Your task to perform on an android device: delete location history Image 0: 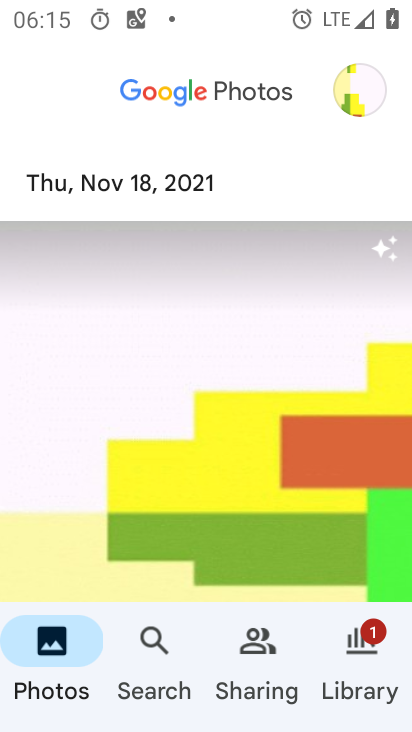
Step 0: drag from (167, 542) to (147, 140)
Your task to perform on an android device: delete location history Image 1: 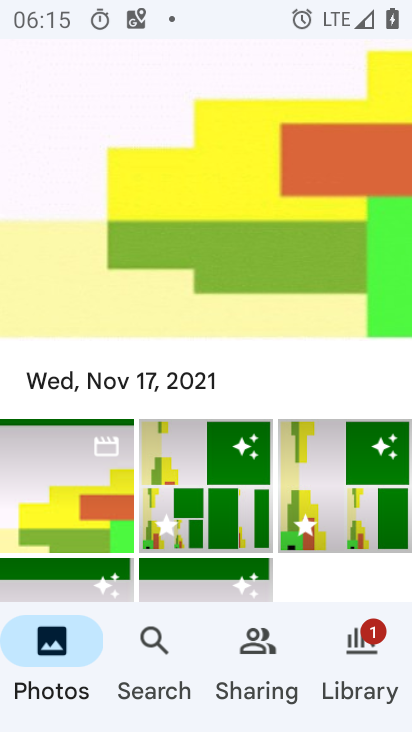
Step 1: press home button
Your task to perform on an android device: delete location history Image 2: 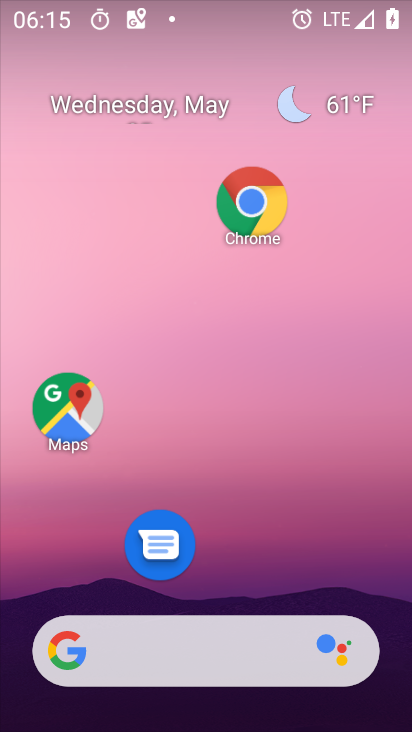
Step 2: drag from (197, 605) to (161, 168)
Your task to perform on an android device: delete location history Image 3: 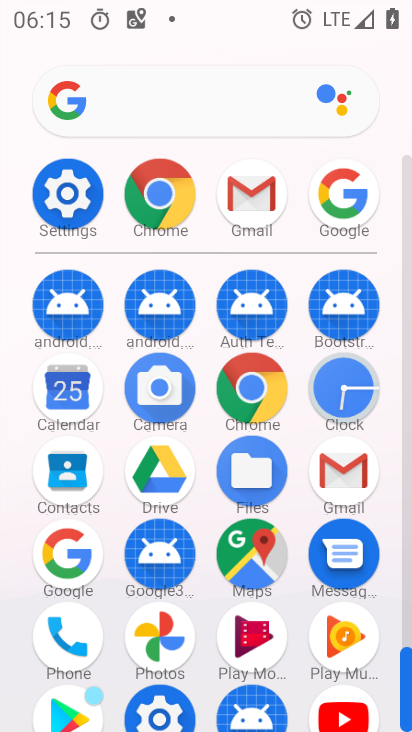
Step 3: drag from (214, 679) to (188, 423)
Your task to perform on an android device: delete location history Image 4: 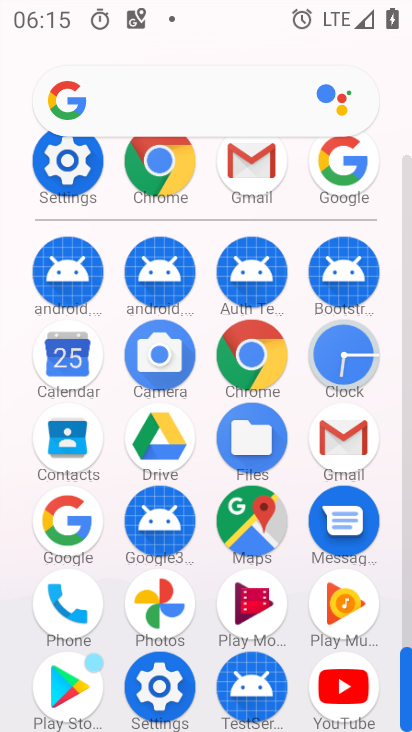
Step 4: click (150, 688)
Your task to perform on an android device: delete location history Image 5: 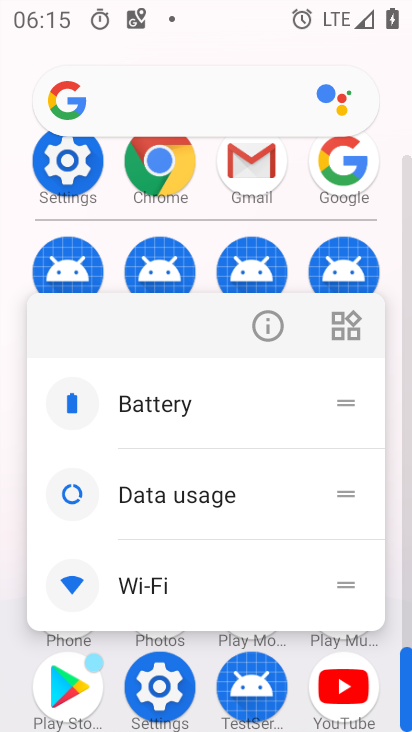
Step 5: click (150, 688)
Your task to perform on an android device: delete location history Image 6: 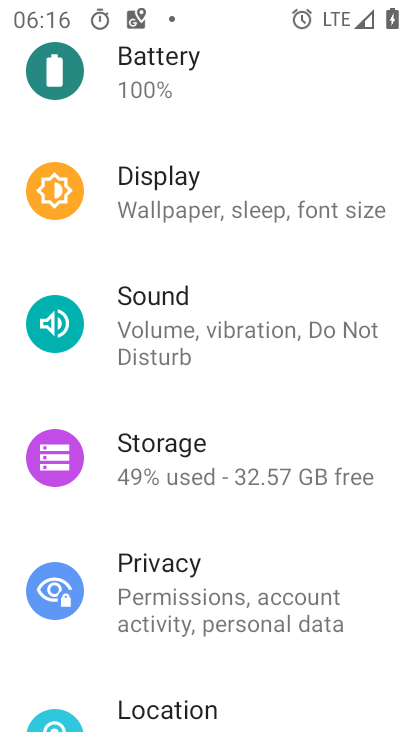
Step 6: drag from (227, 701) to (214, 405)
Your task to perform on an android device: delete location history Image 7: 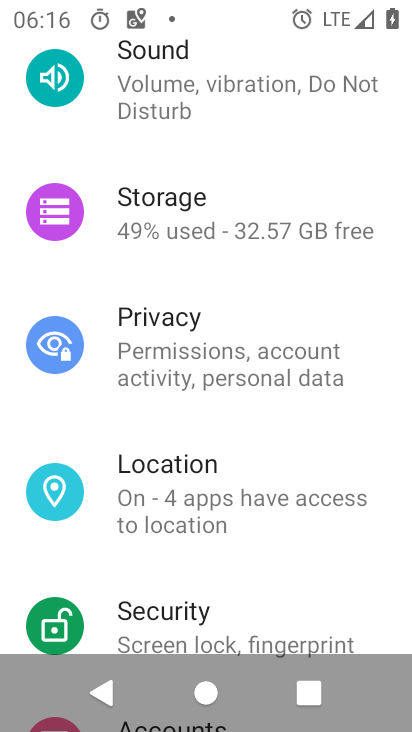
Step 7: click (184, 490)
Your task to perform on an android device: delete location history Image 8: 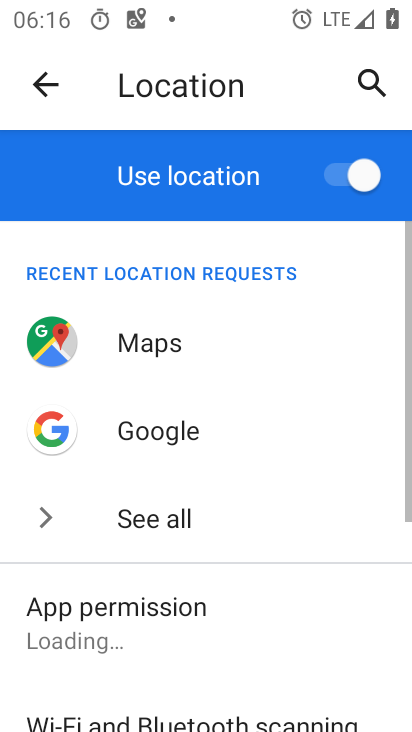
Step 8: drag from (224, 692) to (212, 407)
Your task to perform on an android device: delete location history Image 9: 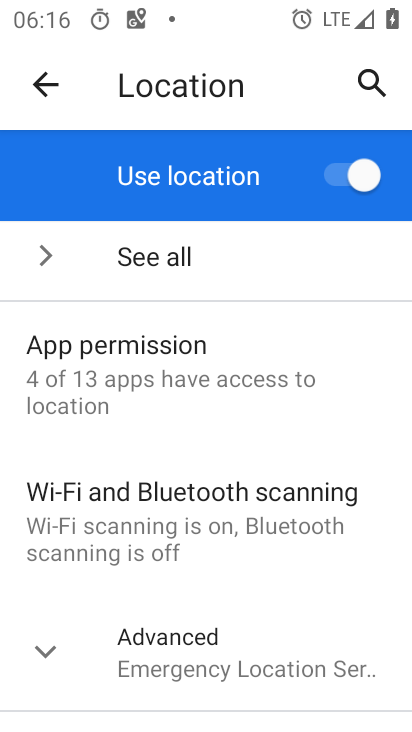
Step 9: click (195, 663)
Your task to perform on an android device: delete location history Image 10: 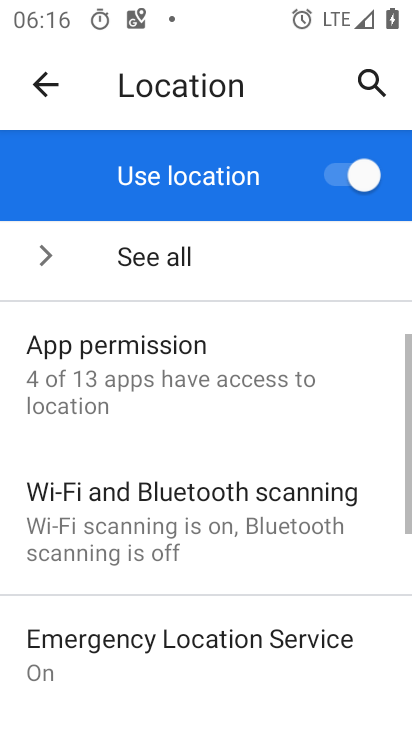
Step 10: drag from (279, 706) to (249, 418)
Your task to perform on an android device: delete location history Image 11: 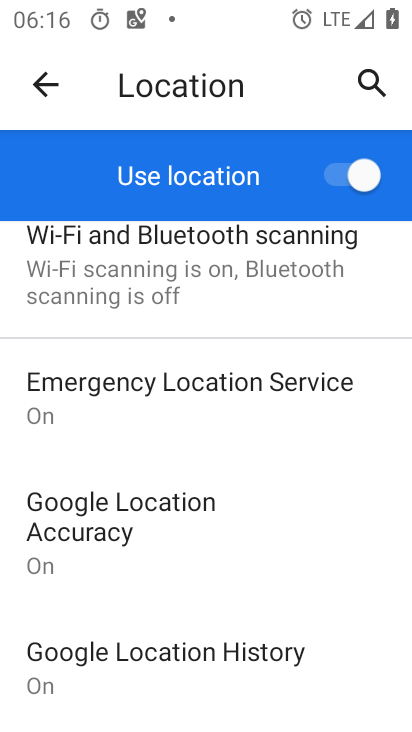
Step 11: drag from (190, 676) to (190, 383)
Your task to perform on an android device: delete location history Image 12: 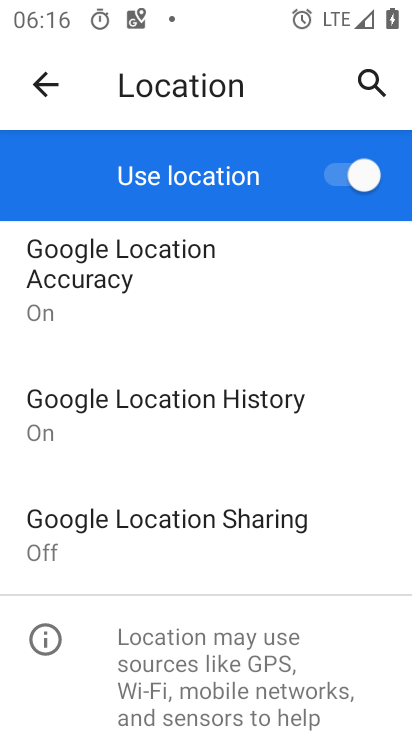
Step 12: click (207, 410)
Your task to perform on an android device: delete location history Image 13: 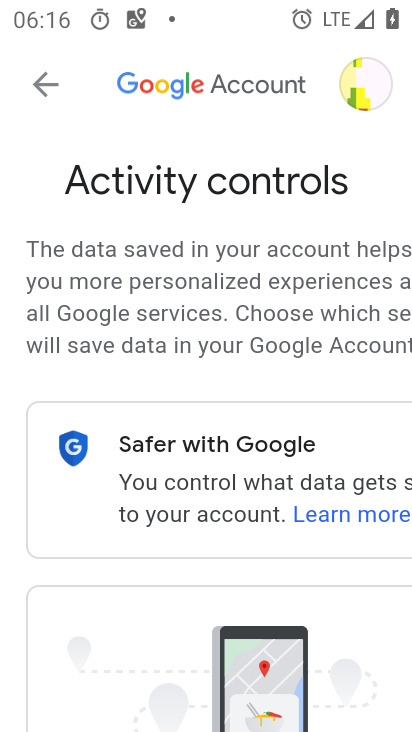
Step 13: drag from (186, 696) to (186, 352)
Your task to perform on an android device: delete location history Image 14: 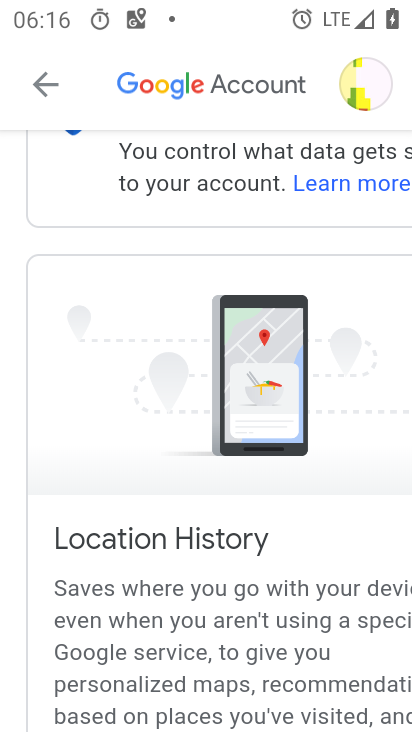
Step 14: drag from (192, 206) to (192, 498)
Your task to perform on an android device: delete location history Image 15: 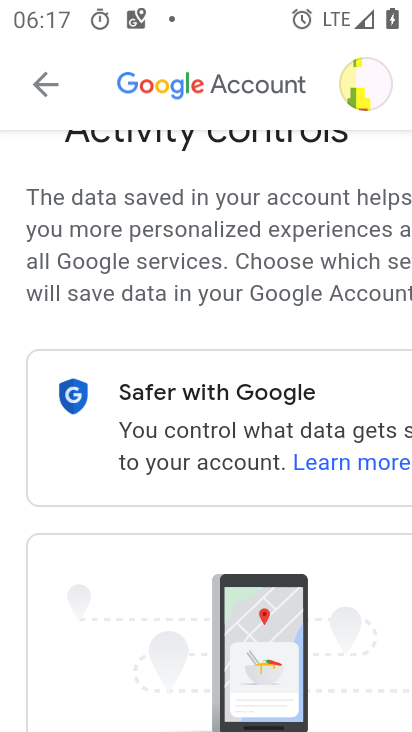
Step 15: drag from (139, 694) to (142, 146)
Your task to perform on an android device: delete location history Image 16: 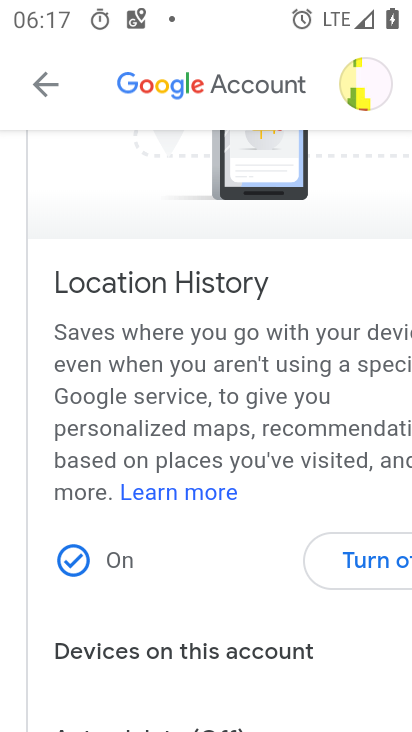
Step 16: drag from (244, 699) to (233, 438)
Your task to perform on an android device: delete location history Image 17: 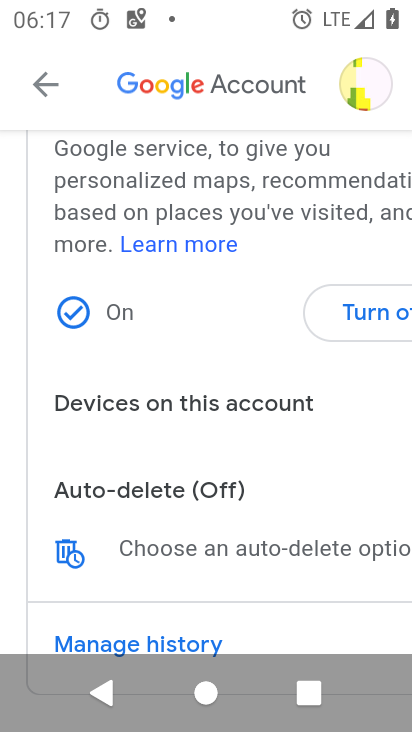
Step 17: drag from (225, 526) to (206, 341)
Your task to perform on an android device: delete location history Image 18: 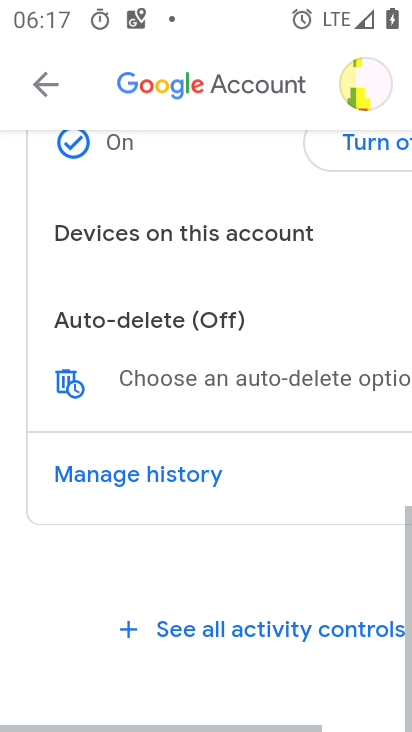
Step 18: click (224, 544)
Your task to perform on an android device: delete location history Image 19: 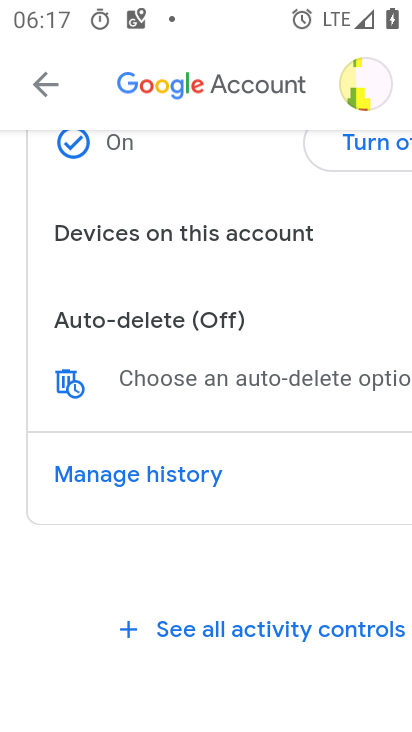
Step 19: click (254, 390)
Your task to perform on an android device: delete location history Image 20: 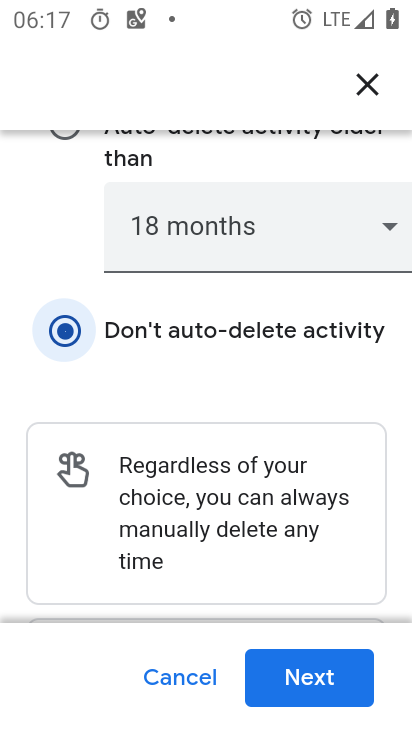
Step 20: click (314, 672)
Your task to perform on an android device: delete location history Image 21: 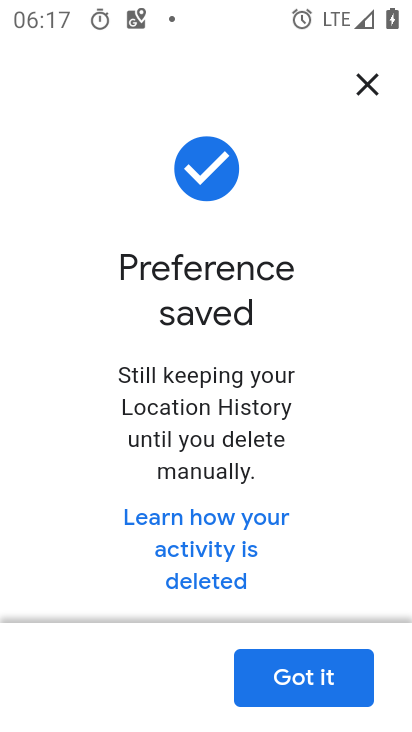
Step 21: click (302, 680)
Your task to perform on an android device: delete location history Image 22: 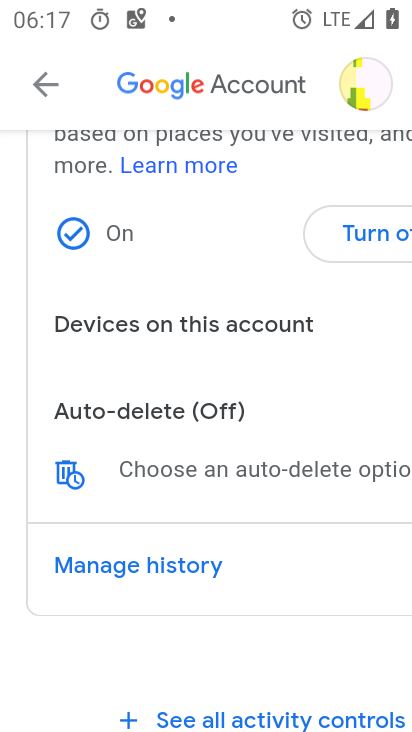
Step 22: task complete